Your task to perform on an android device: change text size in settings app Image 0: 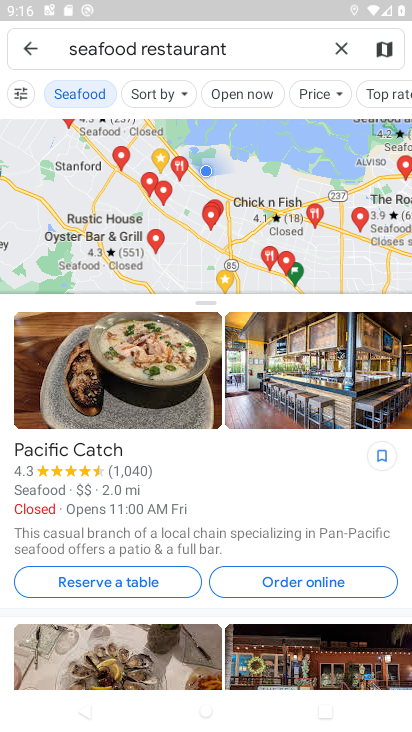
Step 0: press home button
Your task to perform on an android device: change text size in settings app Image 1: 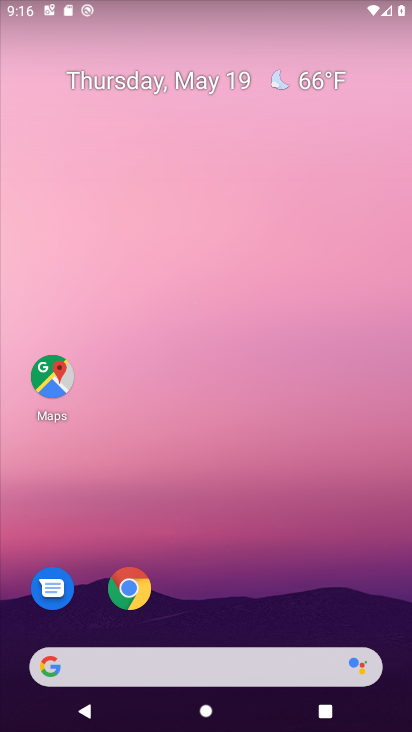
Step 1: drag from (357, 623) to (316, 188)
Your task to perform on an android device: change text size in settings app Image 2: 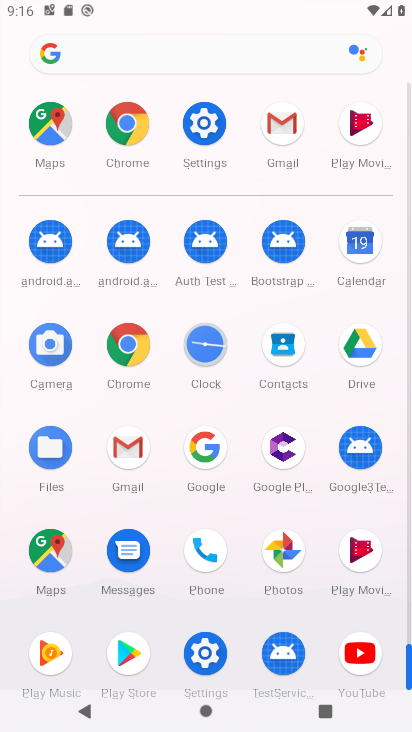
Step 2: click (205, 653)
Your task to perform on an android device: change text size in settings app Image 3: 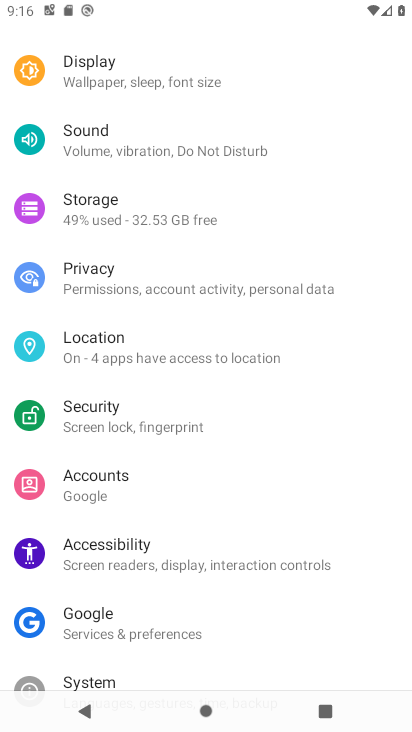
Step 3: drag from (366, 425) to (356, 545)
Your task to perform on an android device: change text size in settings app Image 4: 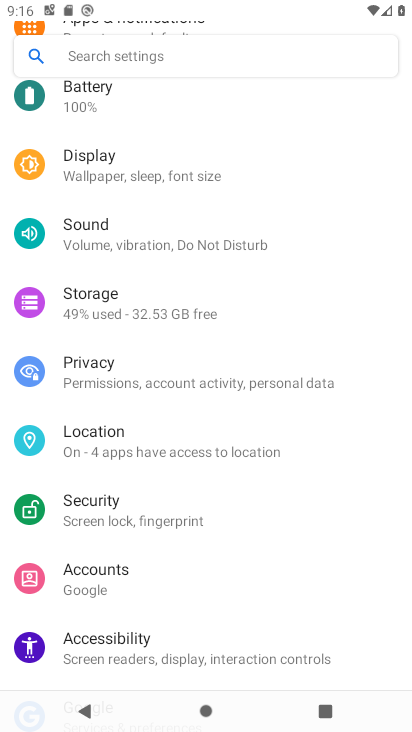
Step 4: drag from (361, 314) to (346, 444)
Your task to perform on an android device: change text size in settings app Image 5: 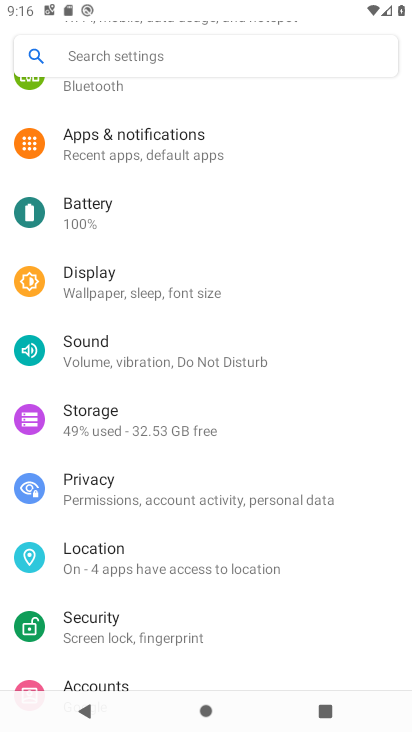
Step 5: drag from (358, 264) to (356, 394)
Your task to perform on an android device: change text size in settings app Image 6: 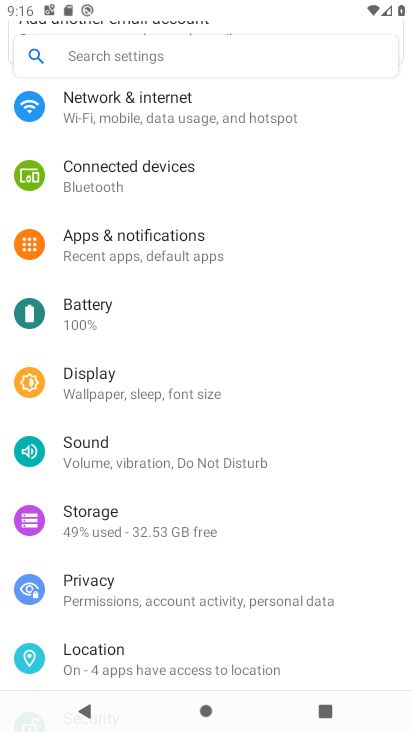
Step 6: drag from (354, 234) to (337, 422)
Your task to perform on an android device: change text size in settings app Image 7: 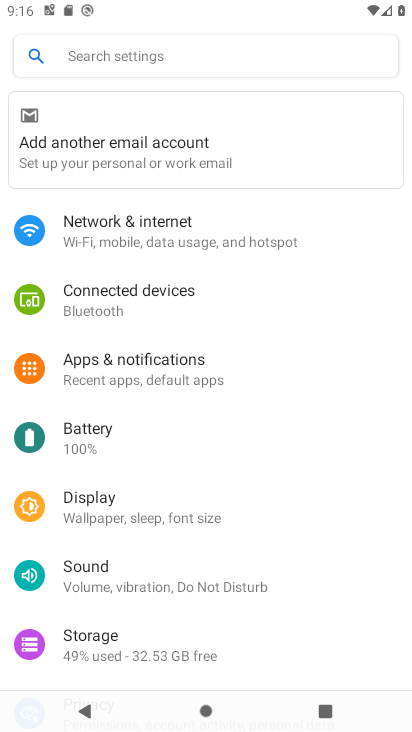
Step 7: drag from (333, 239) to (313, 427)
Your task to perform on an android device: change text size in settings app Image 8: 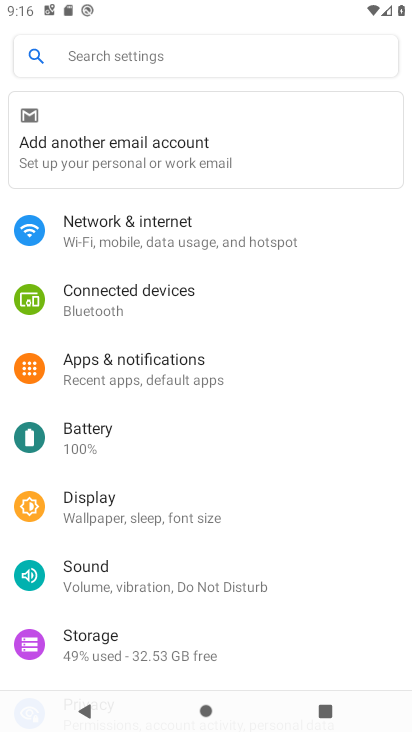
Step 8: drag from (317, 541) to (326, 392)
Your task to perform on an android device: change text size in settings app Image 9: 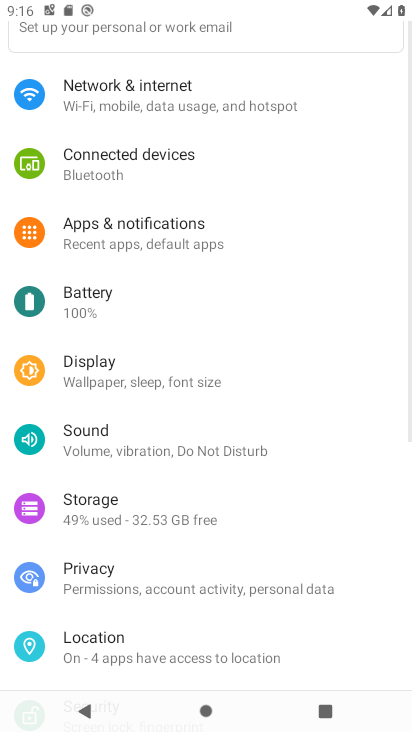
Step 9: drag from (336, 542) to (332, 397)
Your task to perform on an android device: change text size in settings app Image 10: 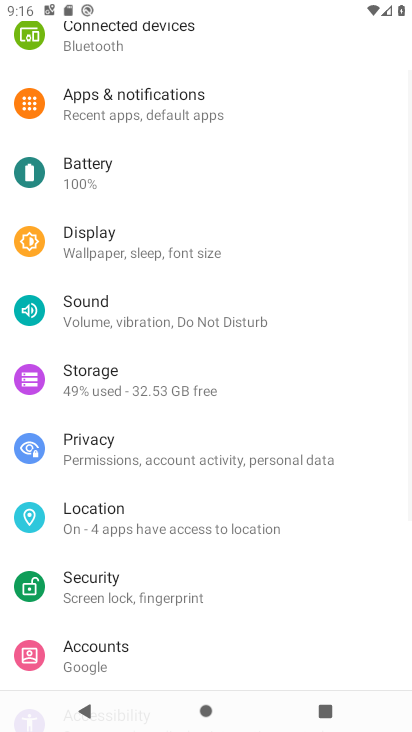
Step 10: drag from (332, 597) to (343, 439)
Your task to perform on an android device: change text size in settings app Image 11: 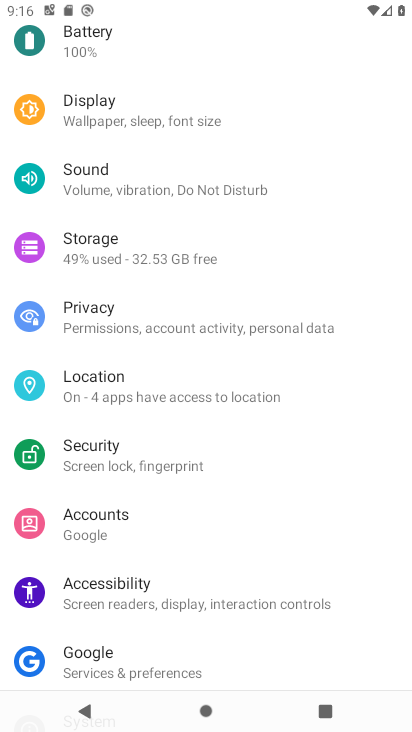
Step 11: drag from (361, 590) to (364, 451)
Your task to perform on an android device: change text size in settings app Image 12: 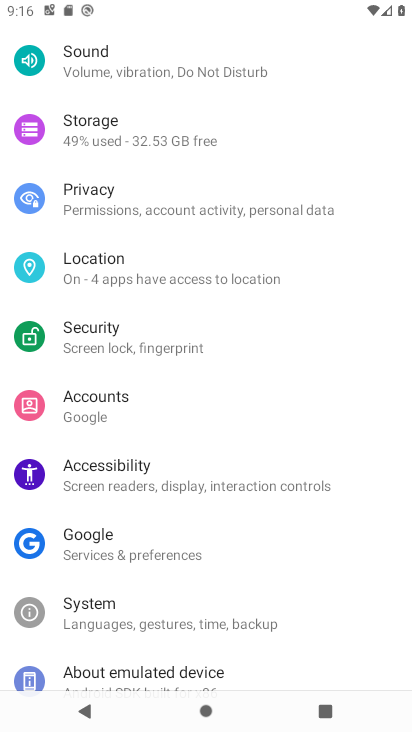
Step 12: drag from (365, 606) to (359, 475)
Your task to perform on an android device: change text size in settings app Image 13: 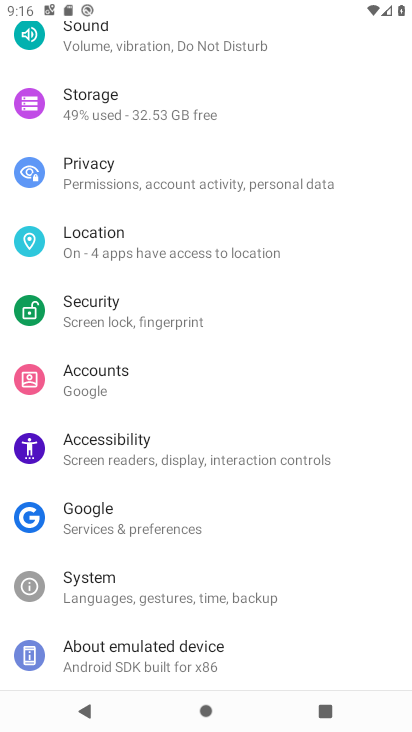
Step 13: drag from (324, 339) to (322, 464)
Your task to perform on an android device: change text size in settings app Image 14: 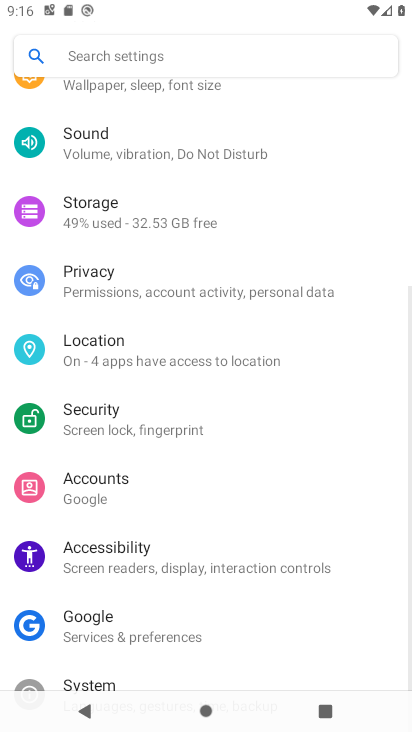
Step 14: drag from (338, 329) to (327, 433)
Your task to perform on an android device: change text size in settings app Image 15: 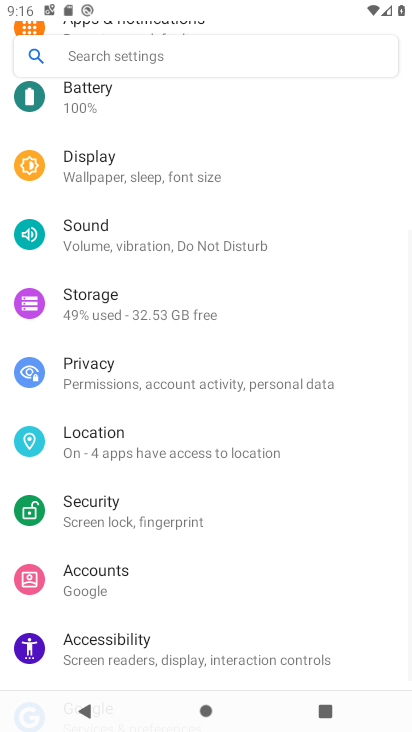
Step 15: drag from (344, 305) to (320, 456)
Your task to perform on an android device: change text size in settings app Image 16: 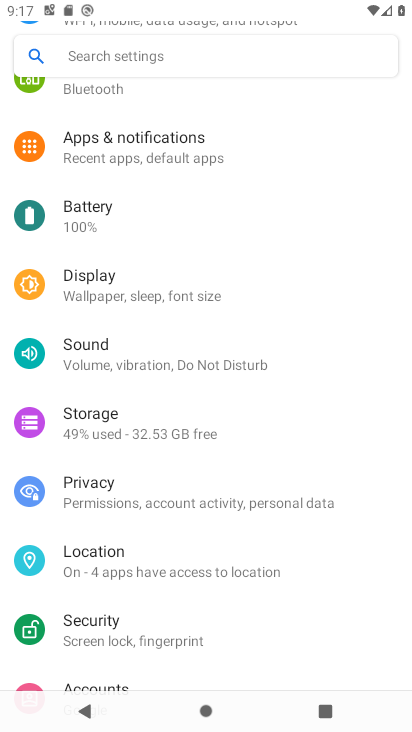
Step 16: click (206, 299)
Your task to perform on an android device: change text size in settings app Image 17: 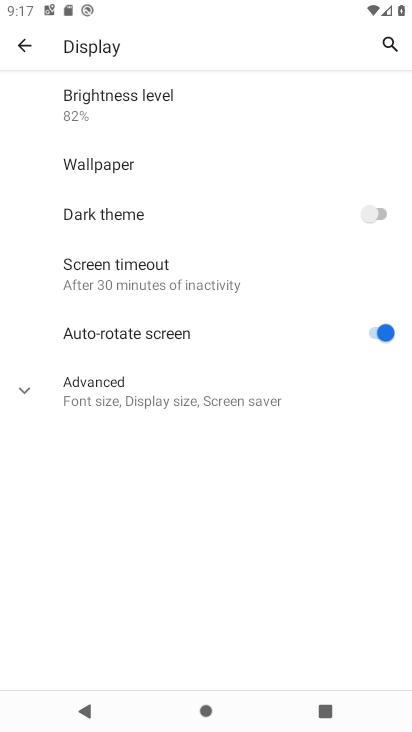
Step 17: click (241, 396)
Your task to perform on an android device: change text size in settings app Image 18: 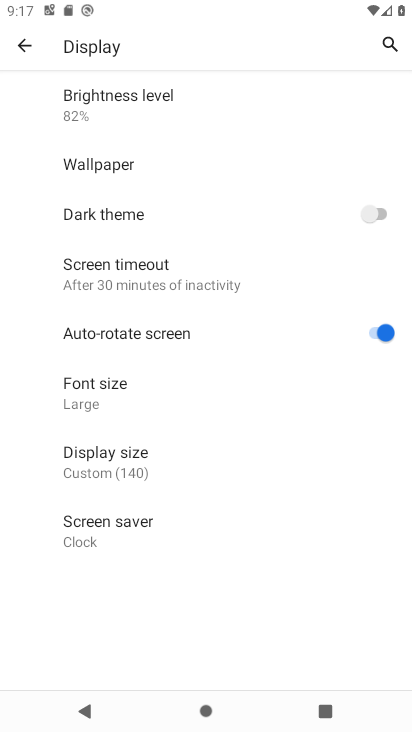
Step 18: click (134, 401)
Your task to perform on an android device: change text size in settings app Image 19: 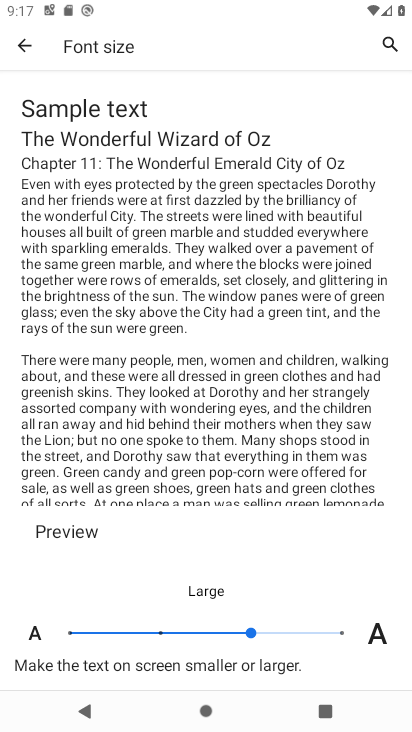
Step 19: click (160, 631)
Your task to perform on an android device: change text size in settings app Image 20: 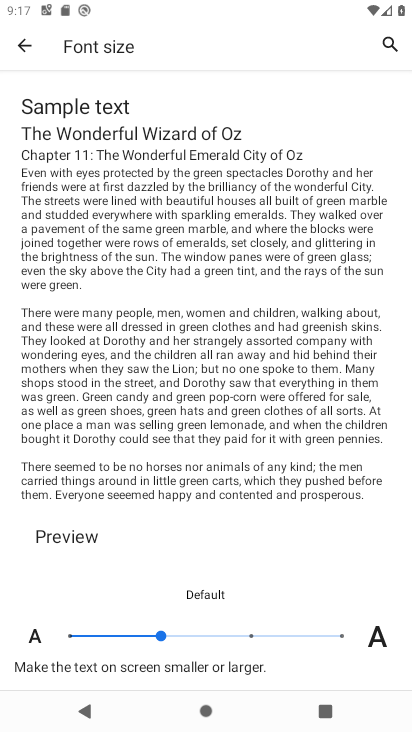
Step 20: task complete